Your task to perform on an android device: set an alarm Image 0: 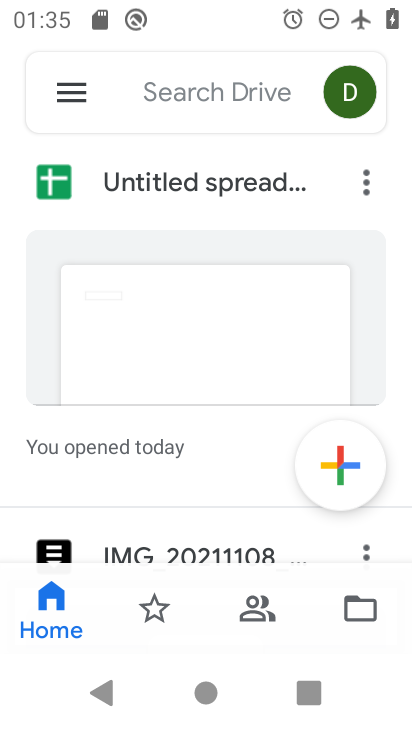
Step 0: press home button
Your task to perform on an android device: set an alarm Image 1: 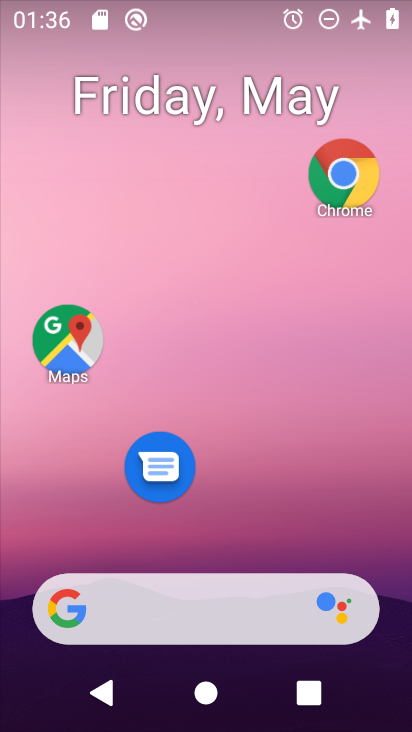
Step 1: drag from (247, 551) to (255, 260)
Your task to perform on an android device: set an alarm Image 2: 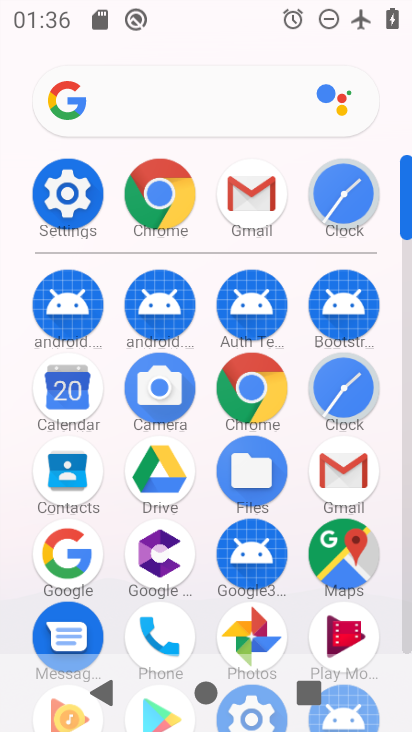
Step 2: click (340, 199)
Your task to perform on an android device: set an alarm Image 3: 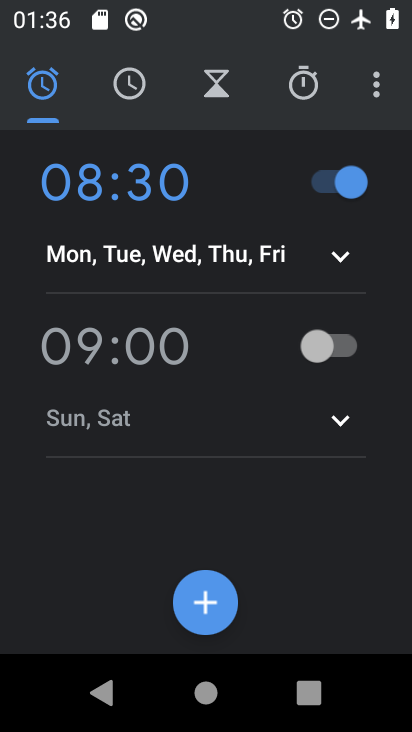
Step 3: task complete